Your task to perform on an android device: Open Amazon Image 0: 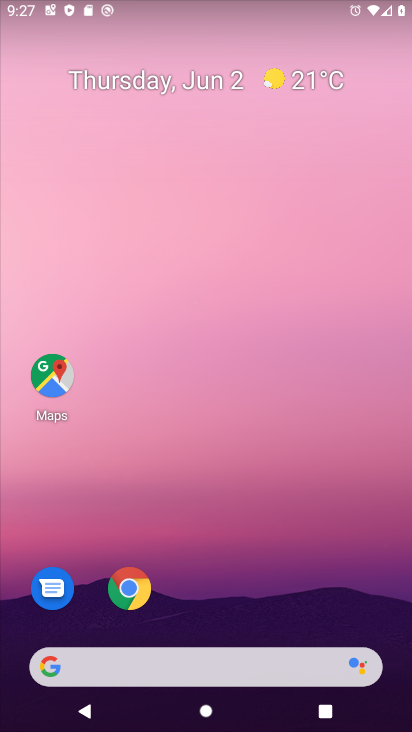
Step 0: click (129, 596)
Your task to perform on an android device: Open Amazon Image 1: 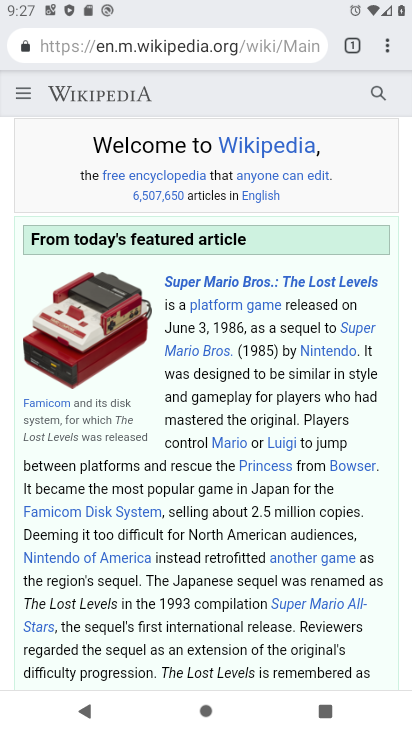
Step 1: click (188, 47)
Your task to perform on an android device: Open Amazon Image 2: 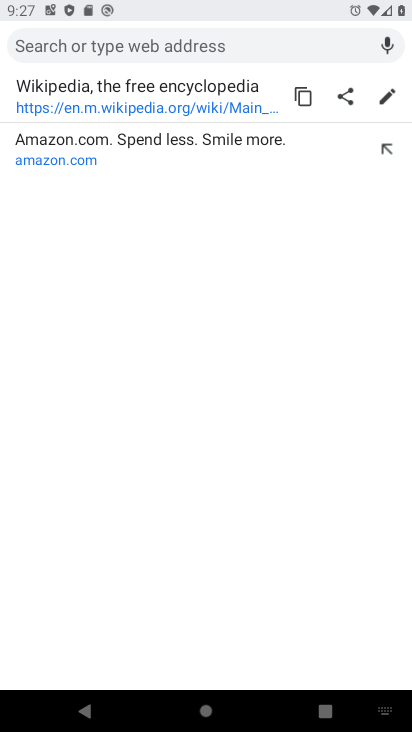
Step 2: click (120, 144)
Your task to perform on an android device: Open Amazon Image 3: 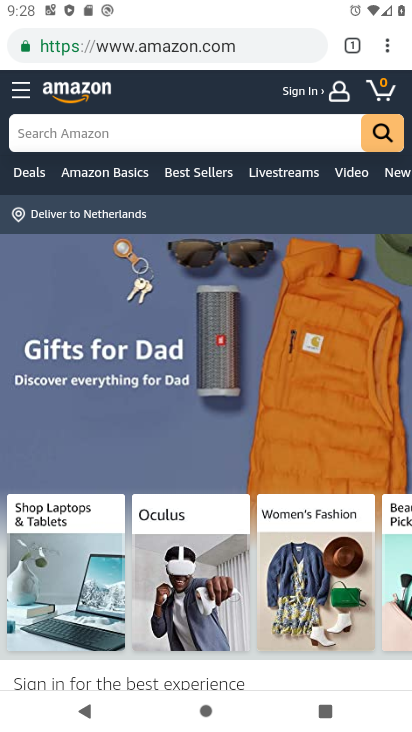
Step 3: task complete